Your task to perform on an android device: Open calendar and show me the third week of next month Image 0: 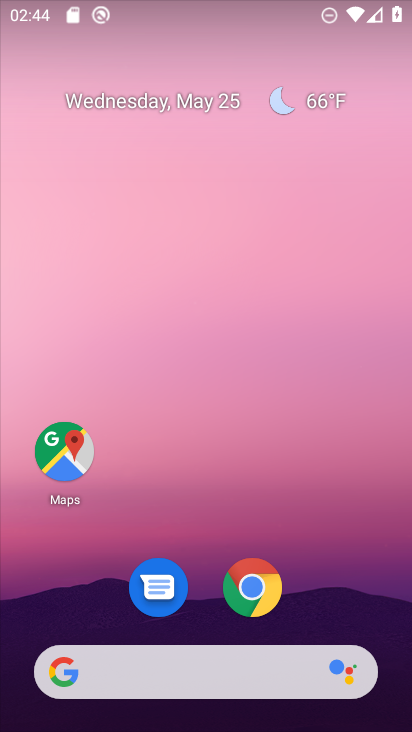
Step 0: drag from (311, 513) to (304, 72)
Your task to perform on an android device: Open calendar and show me the third week of next month Image 1: 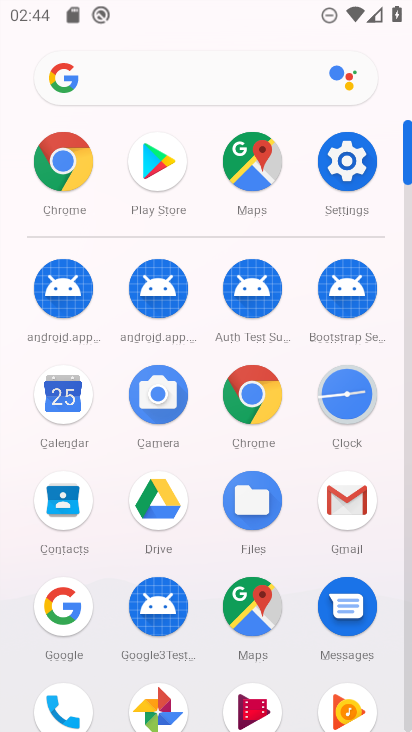
Step 1: click (58, 417)
Your task to perform on an android device: Open calendar and show me the third week of next month Image 2: 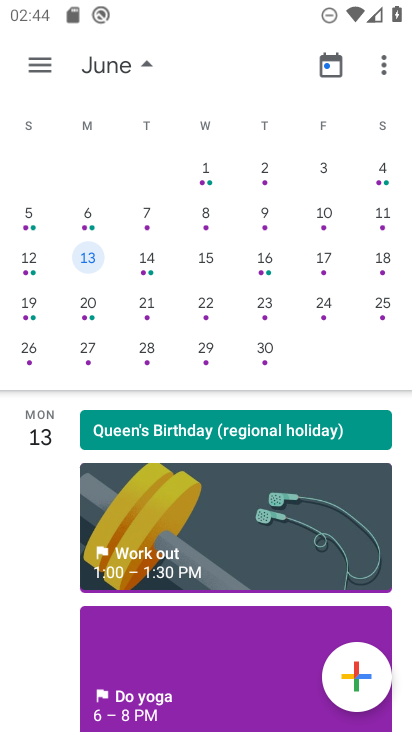
Step 2: task complete